Your task to perform on an android device: all mails in gmail Image 0: 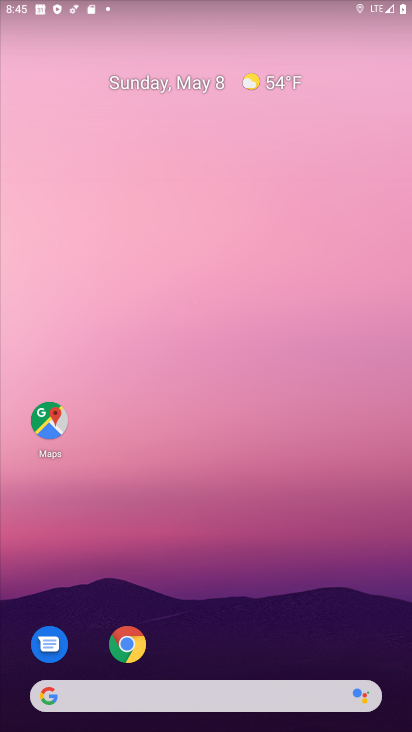
Step 0: drag from (154, 677) to (242, 161)
Your task to perform on an android device: all mails in gmail Image 1: 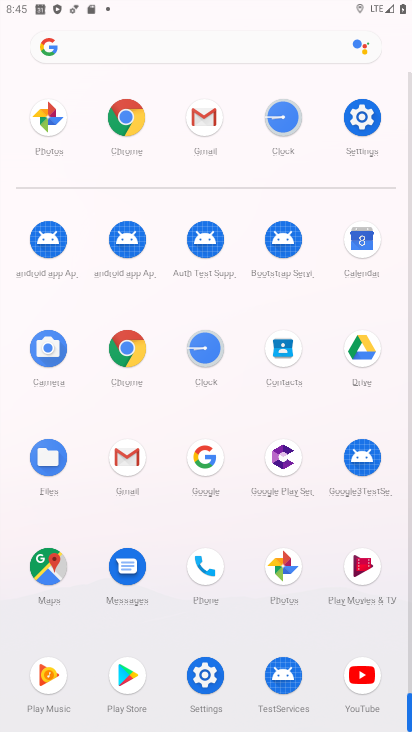
Step 1: click (123, 456)
Your task to perform on an android device: all mails in gmail Image 2: 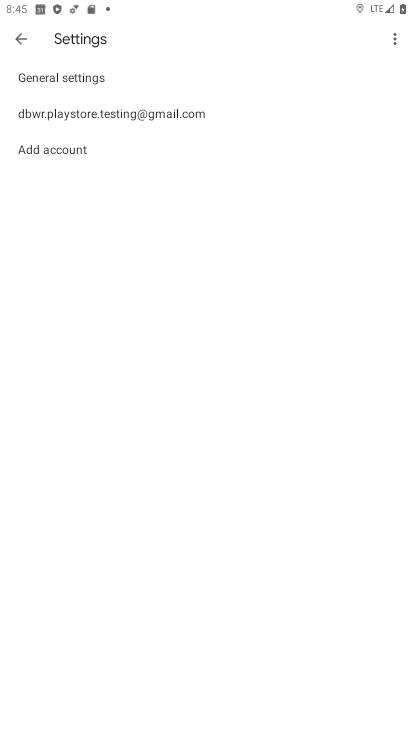
Step 2: click (131, 113)
Your task to perform on an android device: all mails in gmail Image 3: 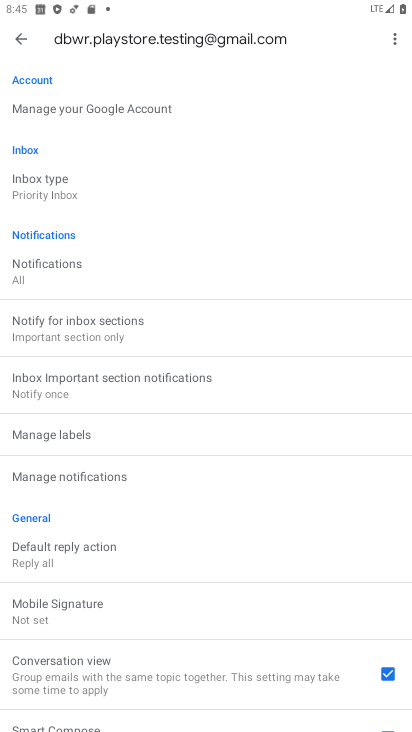
Step 3: drag from (204, 674) to (246, 24)
Your task to perform on an android device: all mails in gmail Image 4: 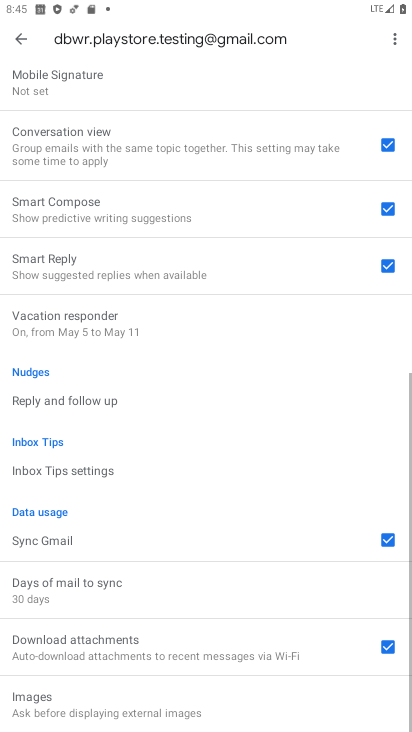
Step 4: drag from (202, 194) to (264, 703)
Your task to perform on an android device: all mails in gmail Image 5: 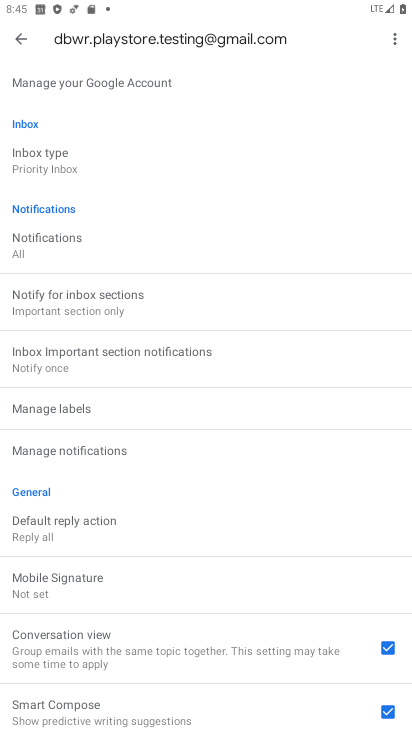
Step 5: click (17, 30)
Your task to perform on an android device: all mails in gmail Image 6: 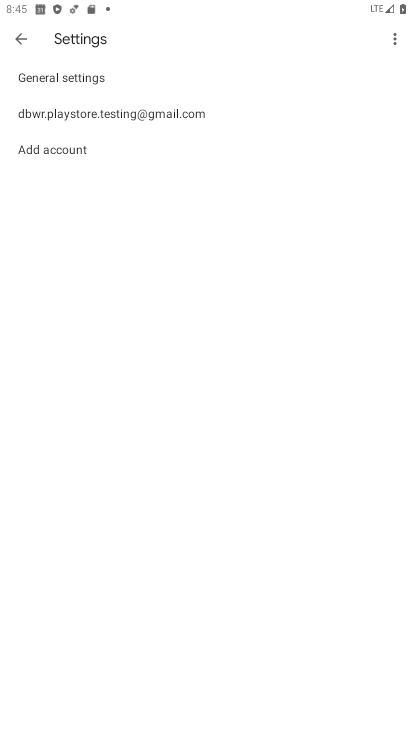
Step 6: click (25, 34)
Your task to perform on an android device: all mails in gmail Image 7: 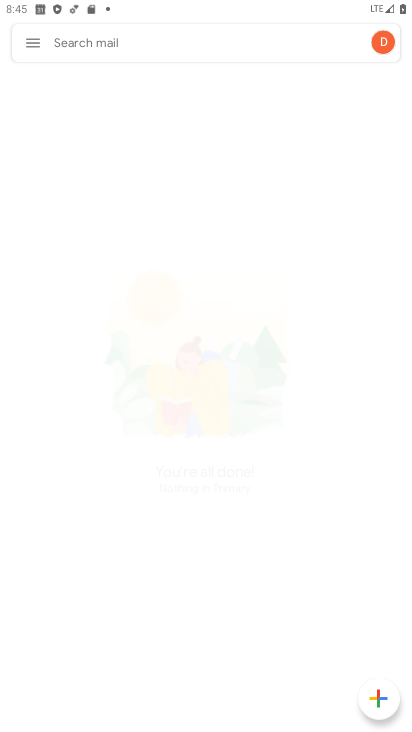
Step 7: click (36, 36)
Your task to perform on an android device: all mails in gmail Image 8: 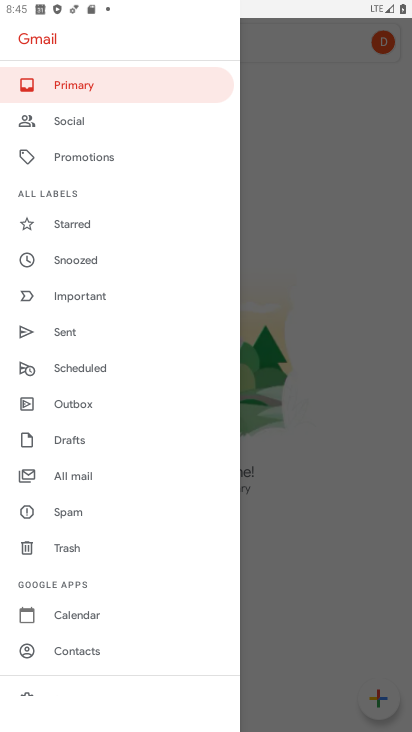
Step 8: drag from (90, 515) to (147, 216)
Your task to perform on an android device: all mails in gmail Image 9: 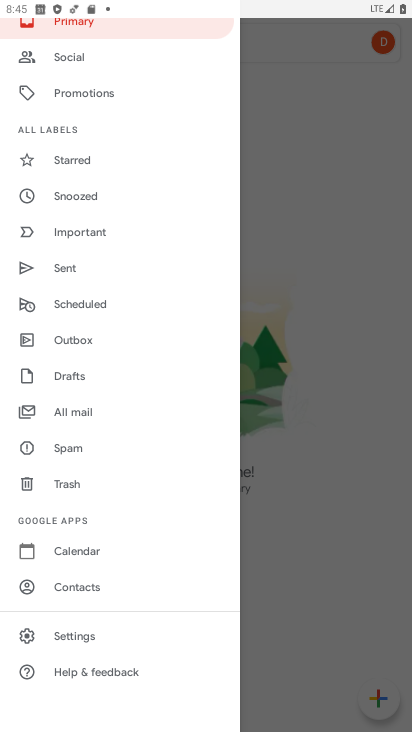
Step 9: click (68, 418)
Your task to perform on an android device: all mails in gmail Image 10: 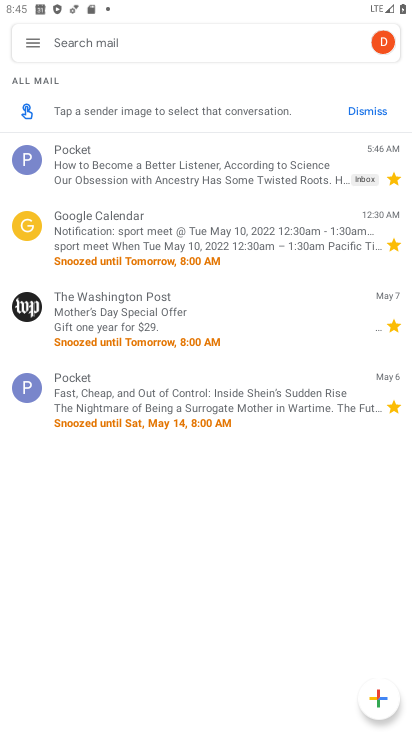
Step 10: drag from (203, 508) to (228, 110)
Your task to perform on an android device: all mails in gmail Image 11: 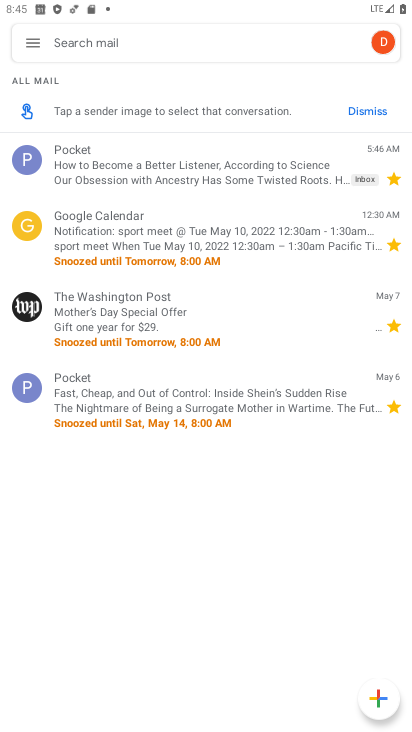
Step 11: click (195, 165)
Your task to perform on an android device: all mails in gmail Image 12: 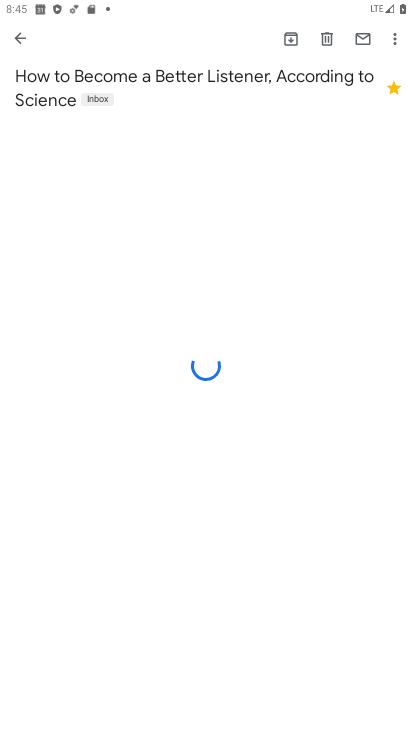
Step 12: task complete